Your task to perform on an android device: Open calendar and show me the fourth week of next month Image 0: 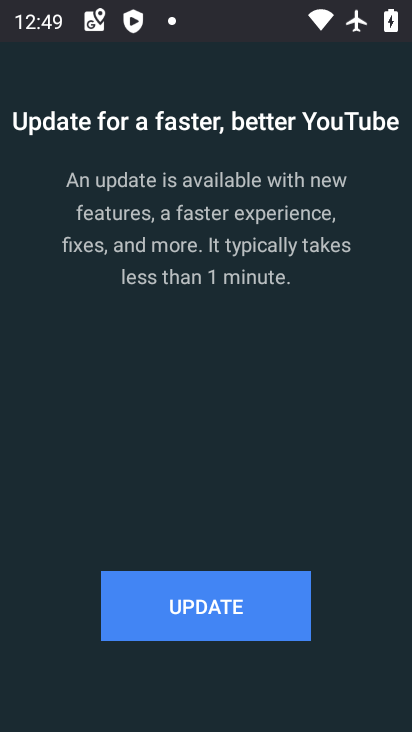
Step 0: press home button
Your task to perform on an android device: Open calendar and show me the fourth week of next month Image 1: 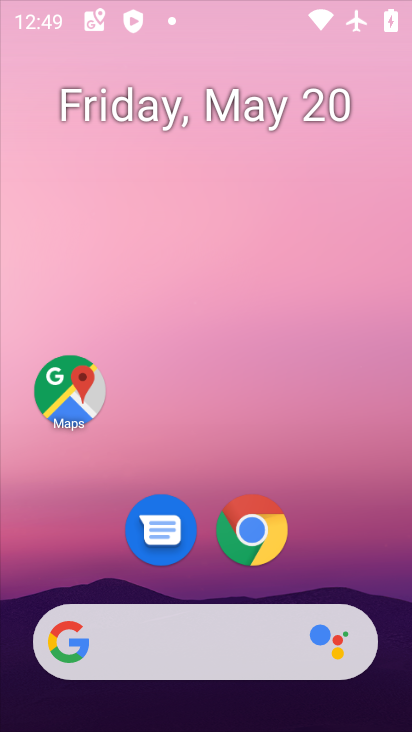
Step 1: drag from (200, 728) to (319, 110)
Your task to perform on an android device: Open calendar and show me the fourth week of next month Image 2: 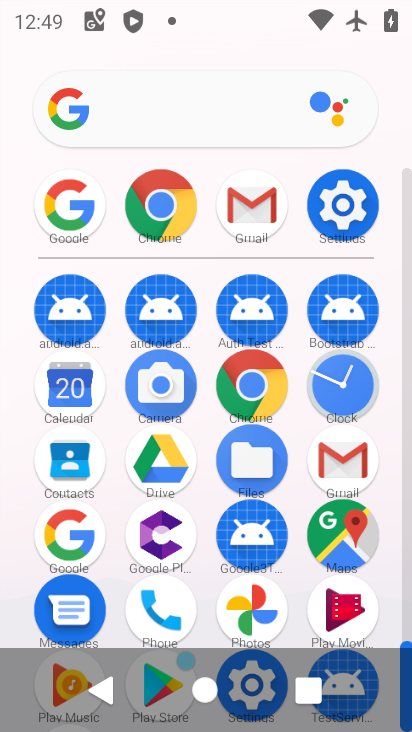
Step 2: click (68, 401)
Your task to perform on an android device: Open calendar and show me the fourth week of next month Image 3: 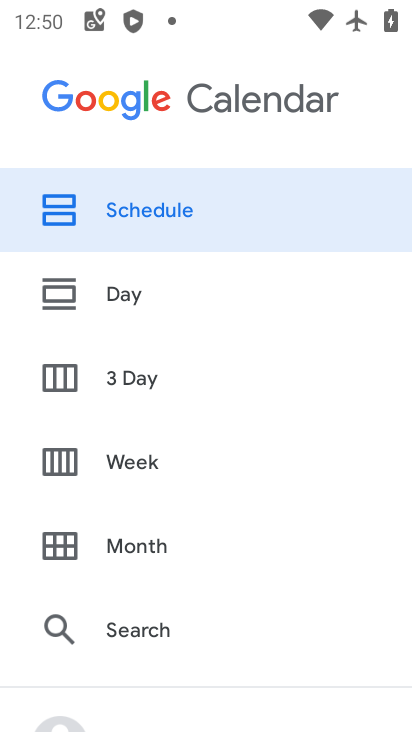
Step 3: press back button
Your task to perform on an android device: Open calendar and show me the fourth week of next month Image 4: 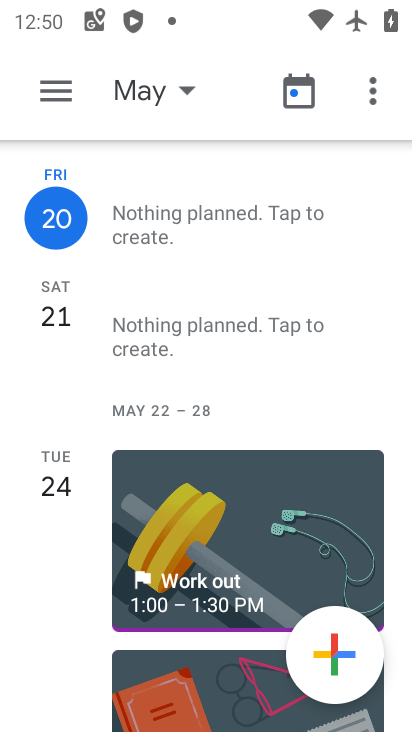
Step 4: drag from (120, 100) to (244, 507)
Your task to perform on an android device: Open calendar and show me the fourth week of next month Image 5: 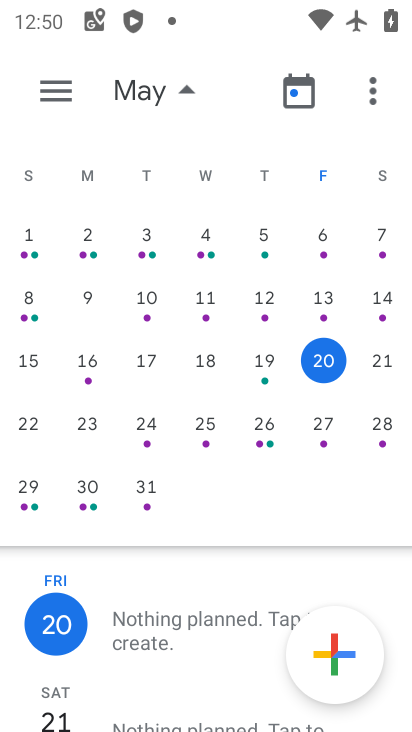
Step 5: drag from (357, 286) to (6, 194)
Your task to perform on an android device: Open calendar and show me the fourth week of next month Image 6: 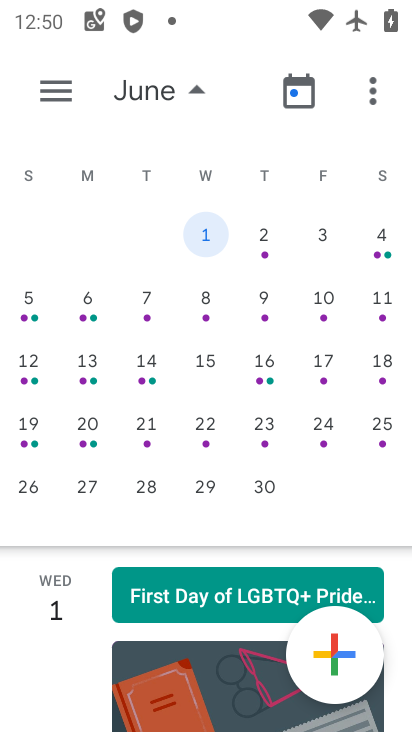
Step 6: click (30, 431)
Your task to perform on an android device: Open calendar and show me the fourth week of next month Image 7: 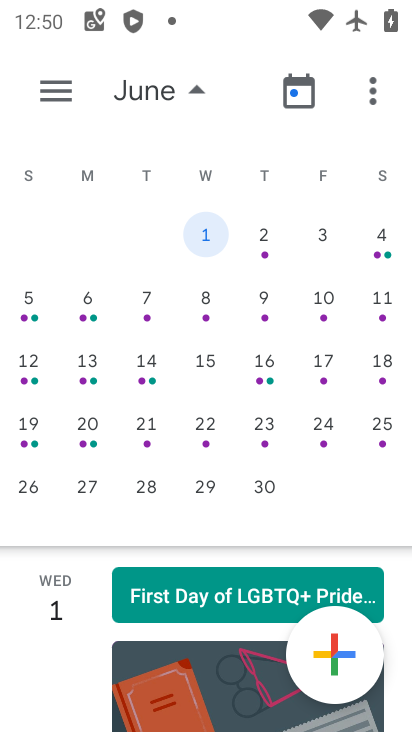
Step 7: click (30, 431)
Your task to perform on an android device: Open calendar and show me the fourth week of next month Image 8: 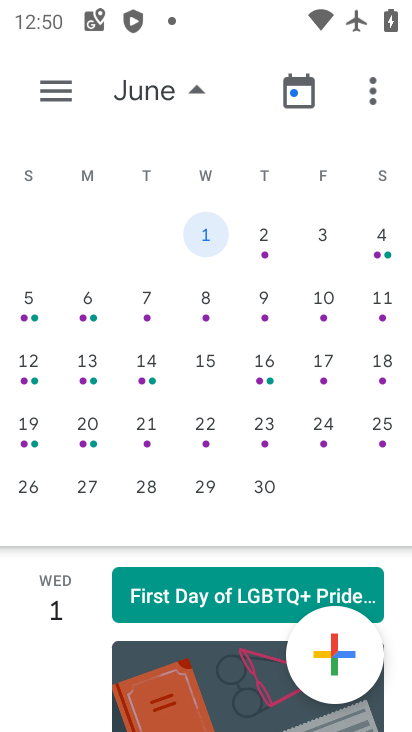
Step 8: click (21, 434)
Your task to perform on an android device: Open calendar and show me the fourth week of next month Image 9: 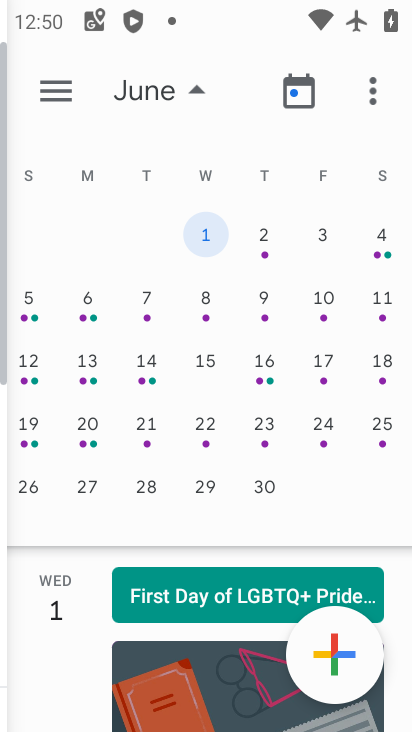
Step 9: click (23, 431)
Your task to perform on an android device: Open calendar and show me the fourth week of next month Image 10: 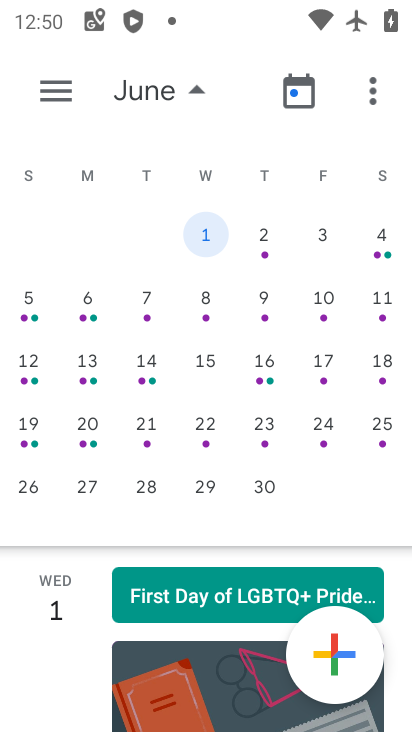
Step 10: click (23, 431)
Your task to perform on an android device: Open calendar and show me the fourth week of next month Image 11: 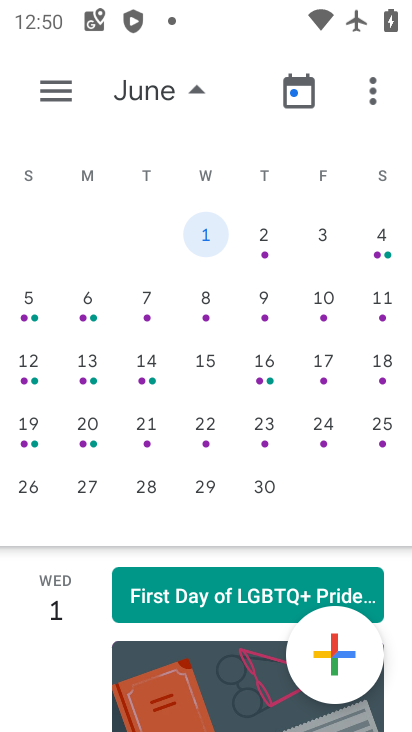
Step 11: click (32, 434)
Your task to perform on an android device: Open calendar and show me the fourth week of next month Image 12: 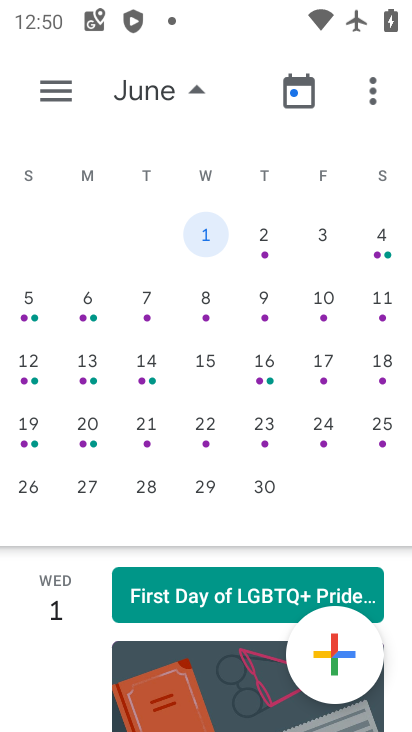
Step 12: click (33, 427)
Your task to perform on an android device: Open calendar and show me the fourth week of next month Image 13: 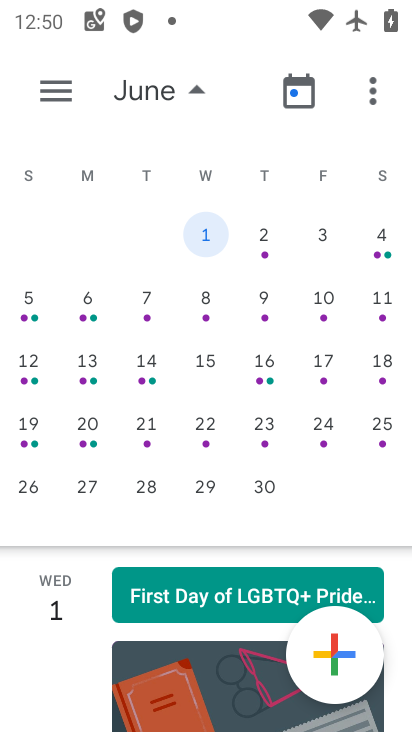
Step 13: click (29, 420)
Your task to perform on an android device: Open calendar and show me the fourth week of next month Image 14: 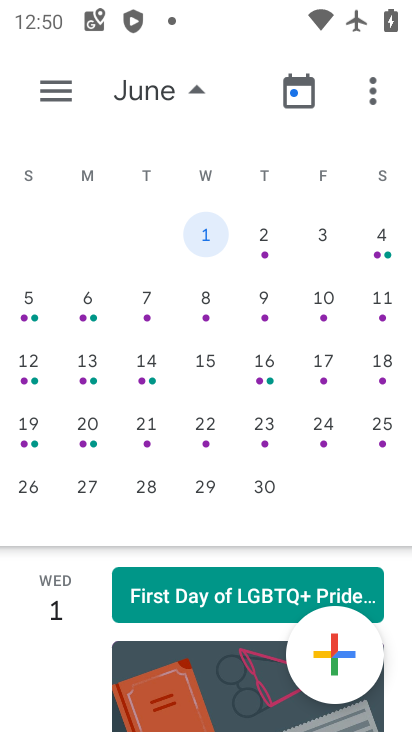
Step 14: click (29, 420)
Your task to perform on an android device: Open calendar and show me the fourth week of next month Image 15: 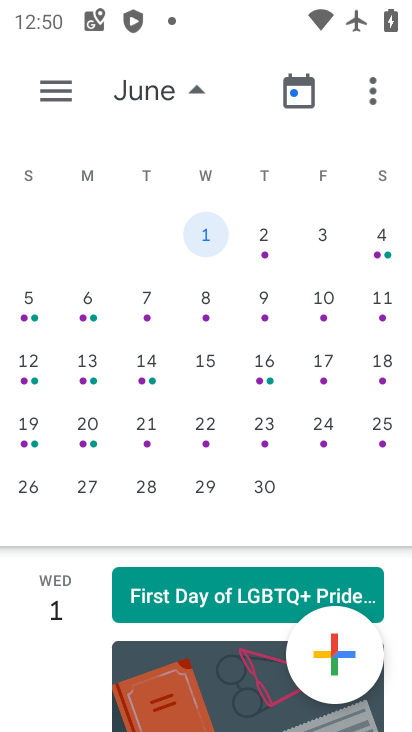
Step 15: click (29, 420)
Your task to perform on an android device: Open calendar and show me the fourth week of next month Image 16: 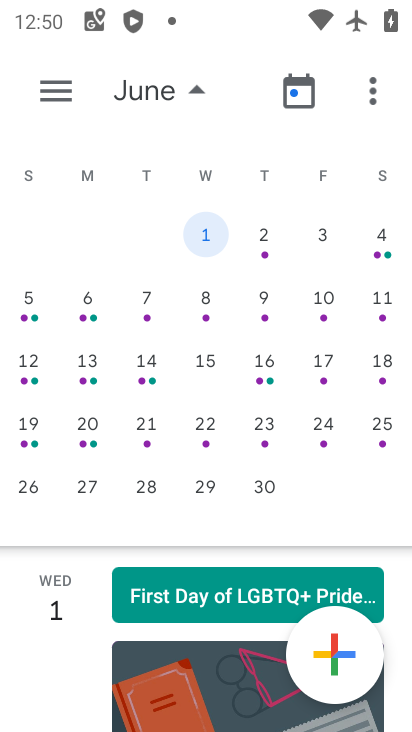
Step 16: click (31, 421)
Your task to perform on an android device: Open calendar and show me the fourth week of next month Image 17: 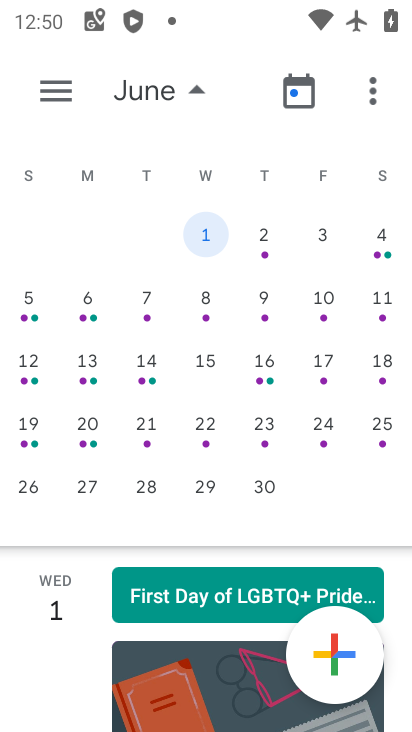
Step 17: click (31, 421)
Your task to perform on an android device: Open calendar and show me the fourth week of next month Image 18: 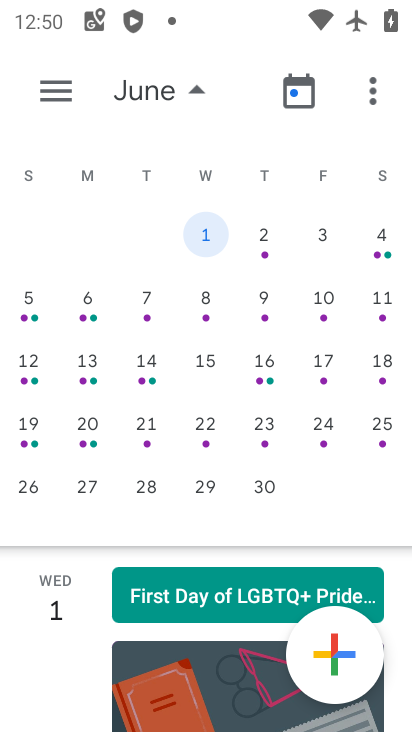
Step 18: click (23, 421)
Your task to perform on an android device: Open calendar and show me the fourth week of next month Image 19: 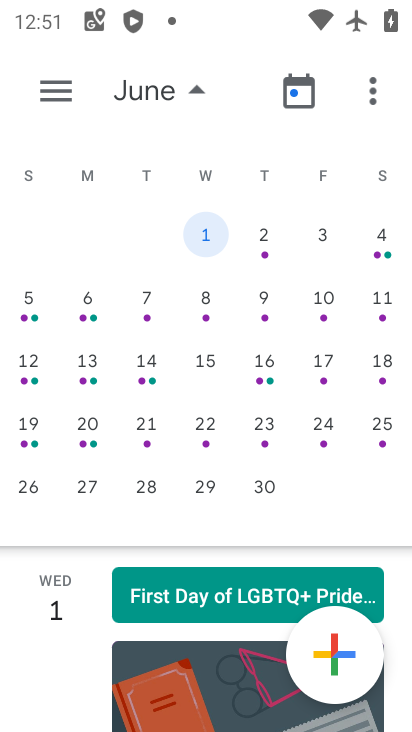
Step 19: click (27, 427)
Your task to perform on an android device: Open calendar and show me the fourth week of next month Image 20: 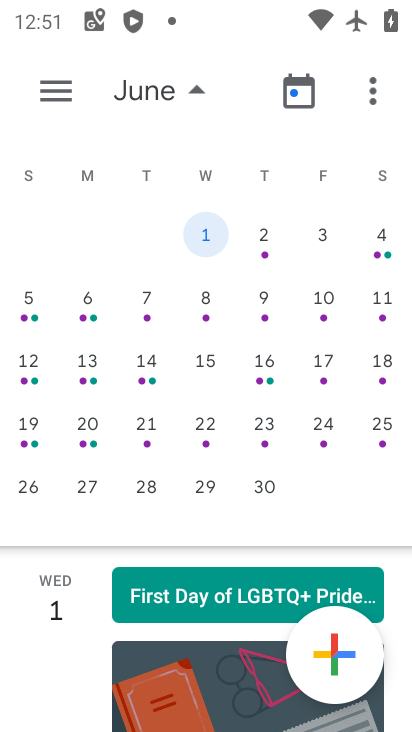
Step 20: task complete